Your task to perform on an android device: Show me recent news Image 0: 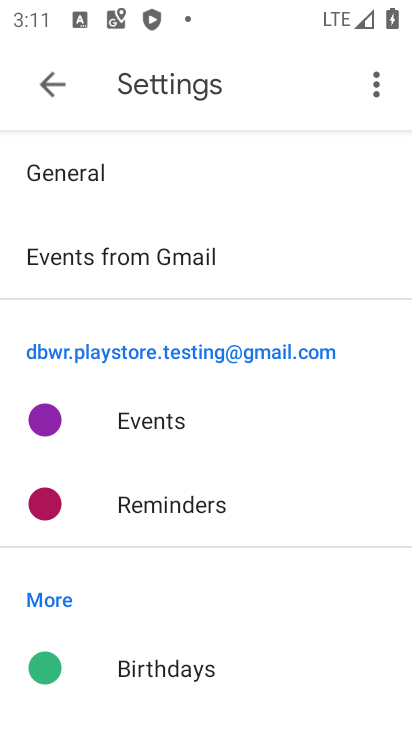
Step 0: press home button
Your task to perform on an android device: Show me recent news Image 1: 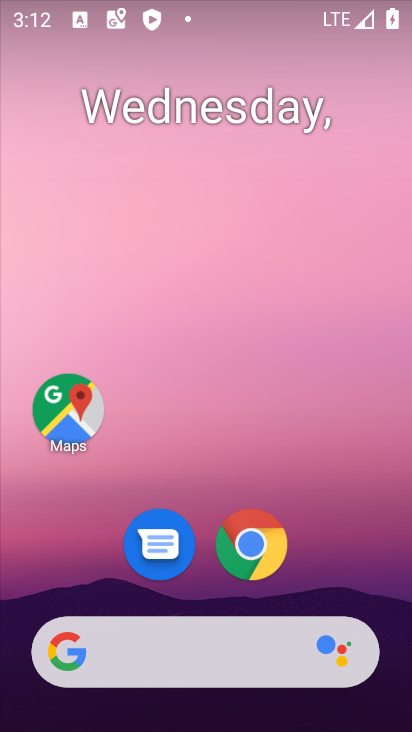
Step 1: task complete